Your task to perform on an android device: Turn on the flashlight Image 0: 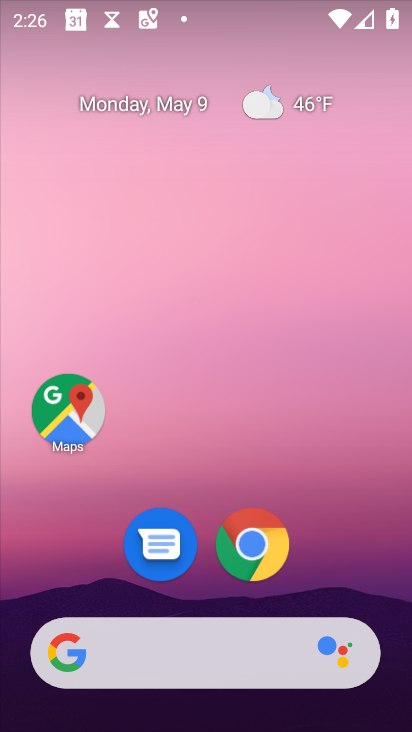
Step 0: drag from (336, 519) to (113, 133)
Your task to perform on an android device: Turn on the flashlight Image 1: 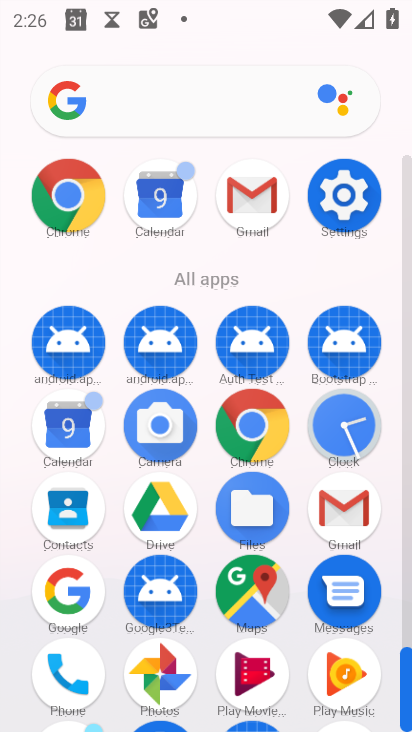
Step 1: click (336, 161)
Your task to perform on an android device: Turn on the flashlight Image 2: 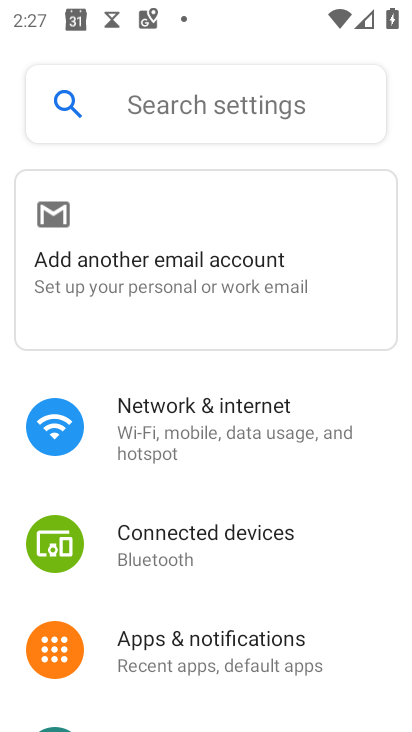
Step 2: click (220, 97)
Your task to perform on an android device: Turn on the flashlight Image 3: 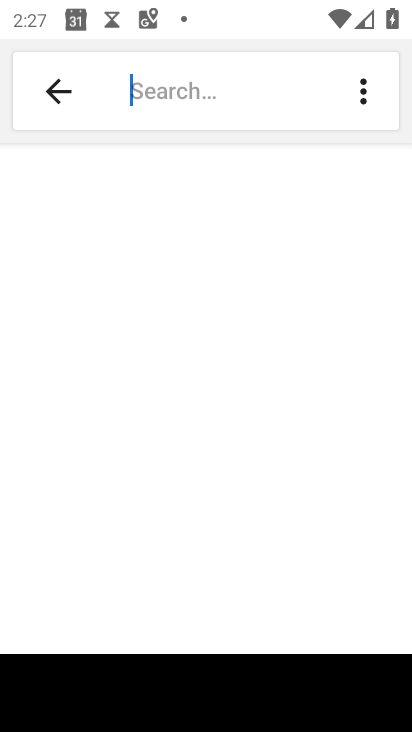
Step 3: type "flashlight"
Your task to perform on an android device: Turn on the flashlight Image 4: 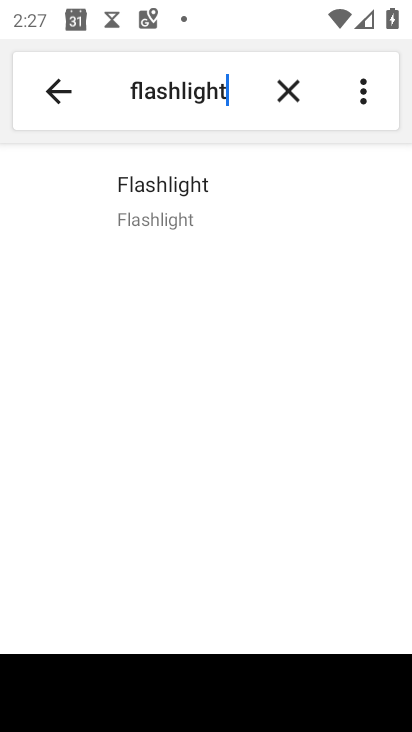
Step 4: click (143, 177)
Your task to perform on an android device: Turn on the flashlight Image 5: 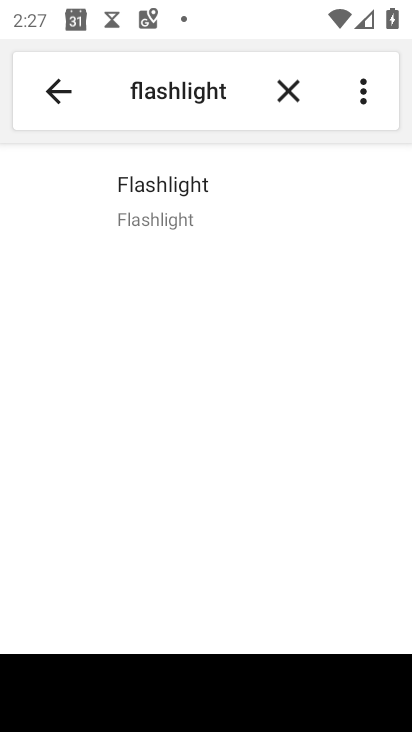
Step 5: click (150, 194)
Your task to perform on an android device: Turn on the flashlight Image 6: 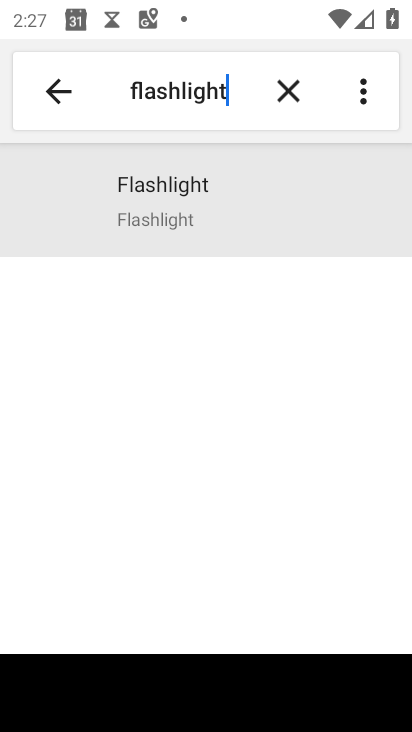
Step 6: click (150, 194)
Your task to perform on an android device: Turn on the flashlight Image 7: 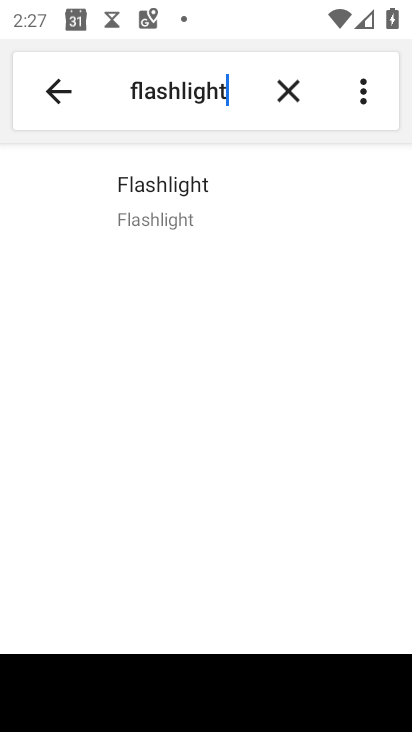
Step 7: click (150, 194)
Your task to perform on an android device: Turn on the flashlight Image 8: 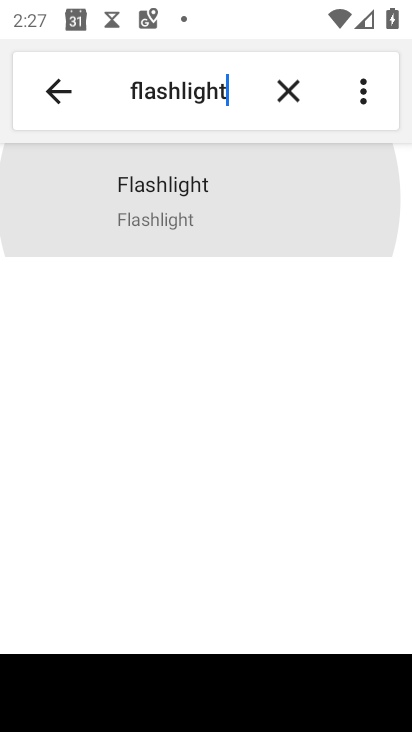
Step 8: click (150, 194)
Your task to perform on an android device: Turn on the flashlight Image 9: 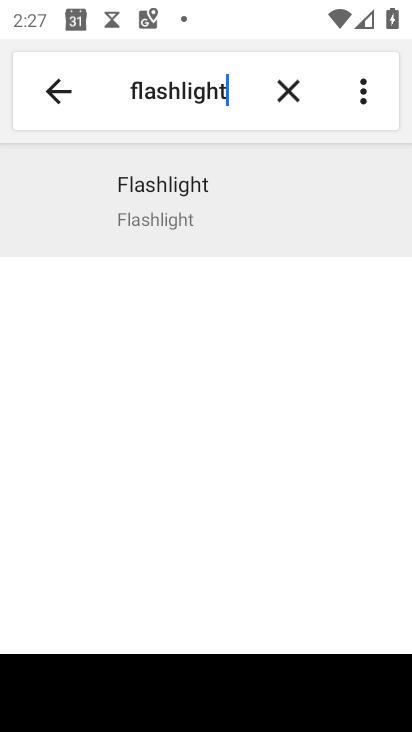
Step 9: click (150, 194)
Your task to perform on an android device: Turn on the flashlight Image 10: 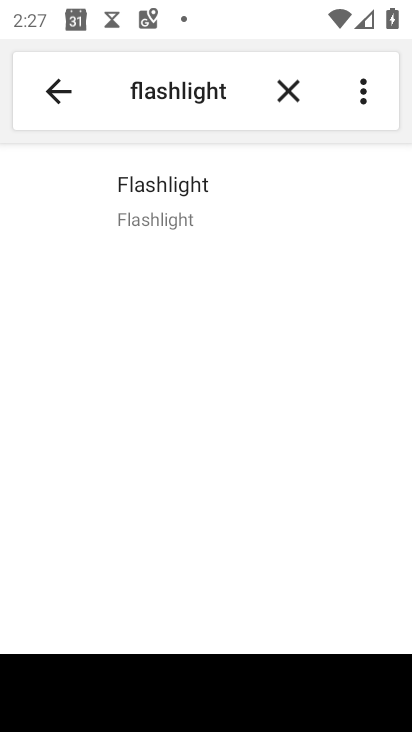
Step 10: task complete